Your task to perform on an android device: Open eBay Image 0: 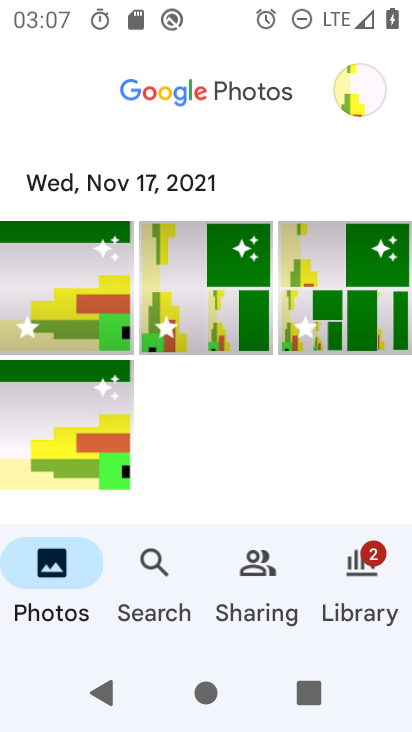
Step 0: press home button
Your task to perform on an android device: Open eBay Image 1: 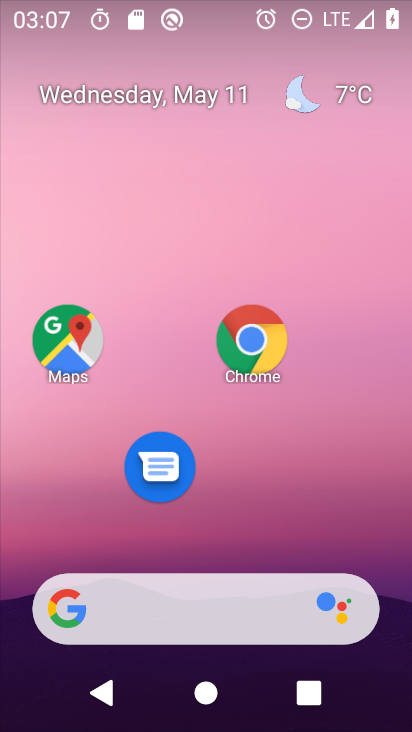
Step 1: click (254, 349)
Your task to perform on an android device: Open eBay Image 2: 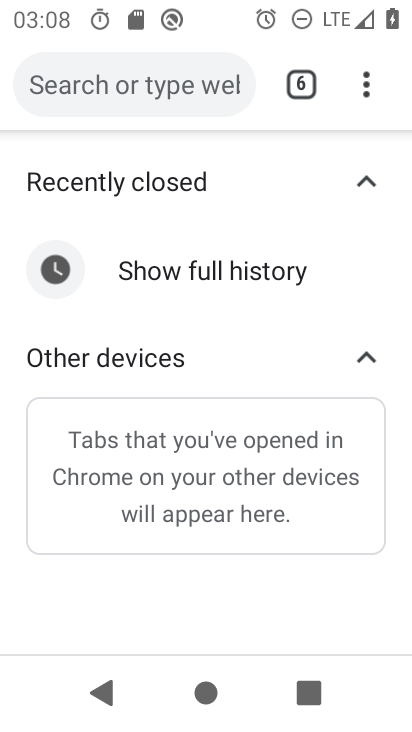
Step 2: drag from (364, 89) to (261, 161)
Your task to perform on an android device: Open eBay Image 3: 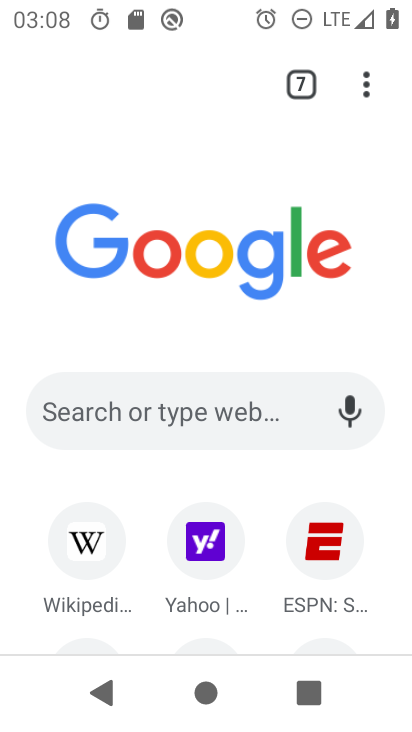
Step 3: drag from (125, 517) to (268, 262)
Your task to perform on an android device: Open eBay Image 4: 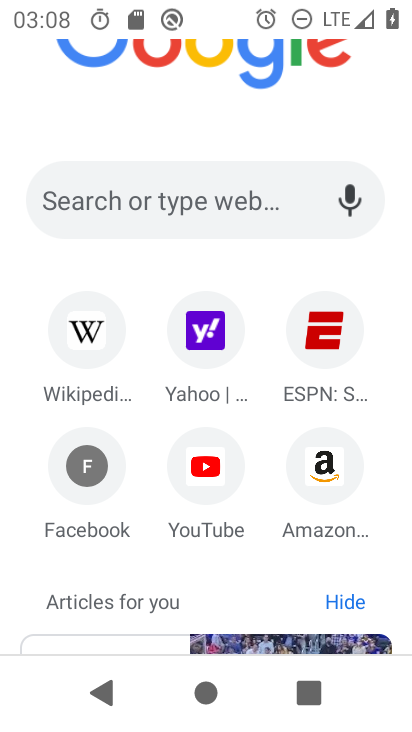
Step 4: click (188, 191)
Your task to perform on an android device: Open eBay Image 5: 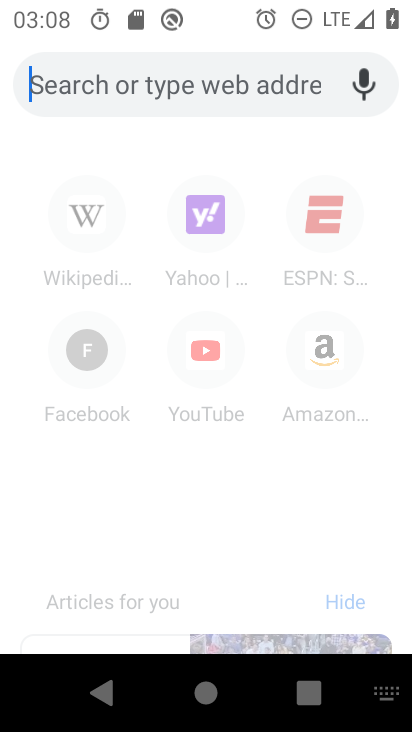
Step 5: type "ebay"
Your task to perform on an android device: Open eBay Image 6: 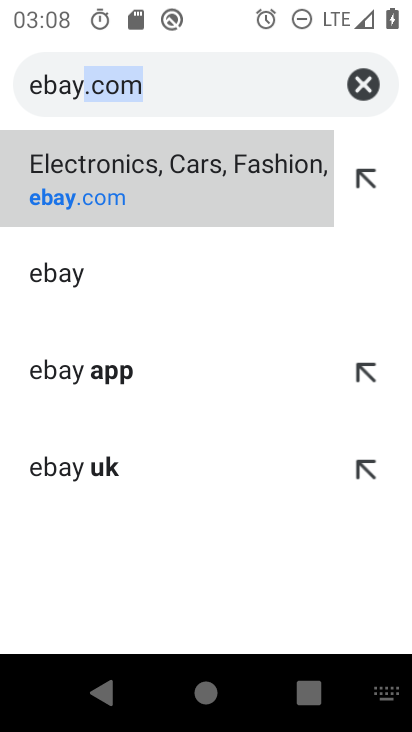
Step 6: click (151, 145)
Your task to perform on an android device: Open eBay Image 7: 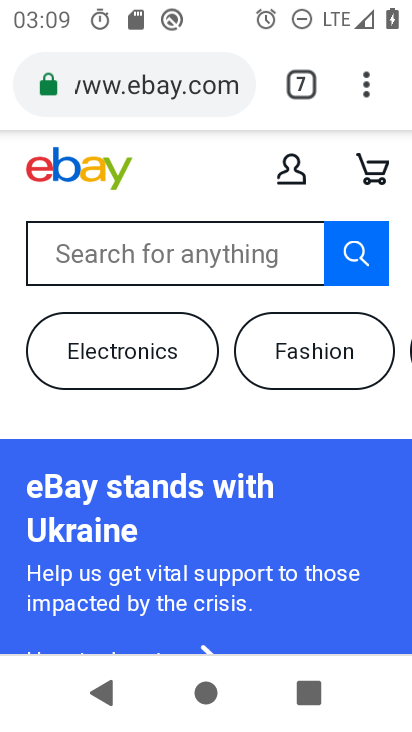
Step 7: task complete